Your task to perform on an android device: Open ESPN.com Image 0: 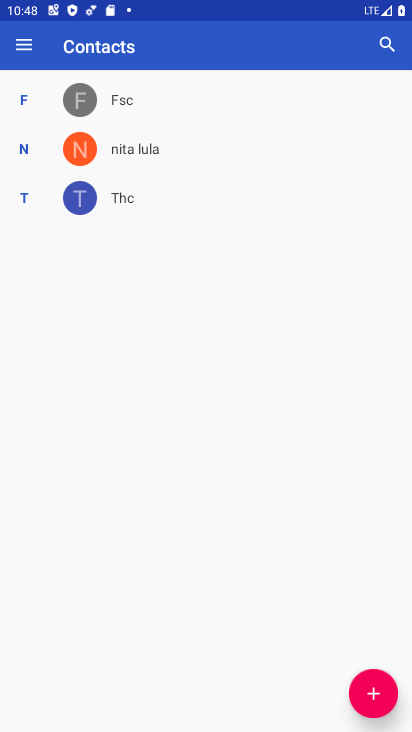
Step 0: press home button
Your task to perform on an android device: Open ESPN.com Image 1: 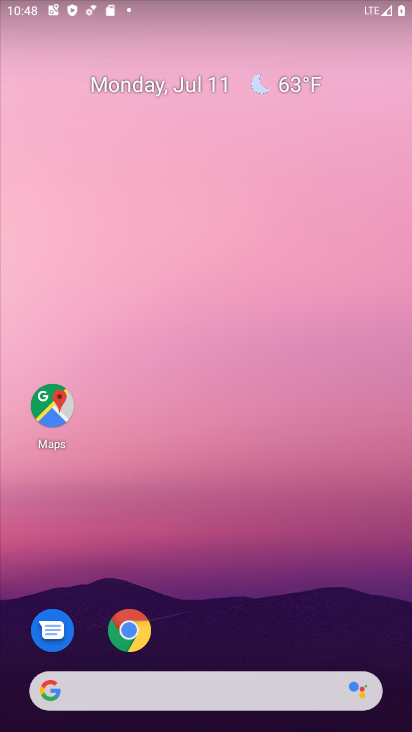
Step 1: click (131, 632)
Your task to perform on an android device: Open ESPN.com Image 2: 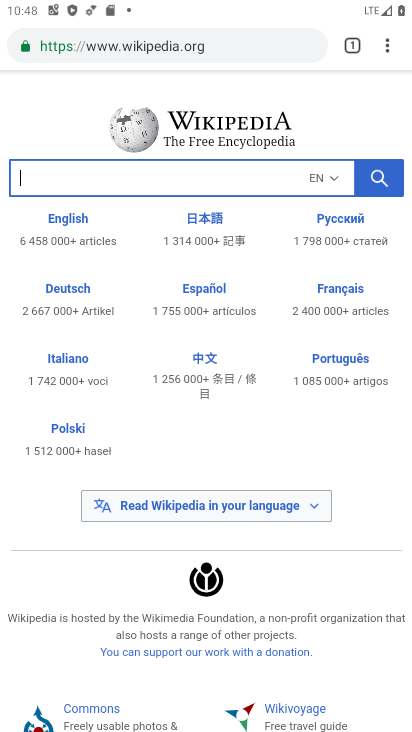
Step 2: click (238, 44)
Your task to perform on an android device: Open ESPN.com Image 3: 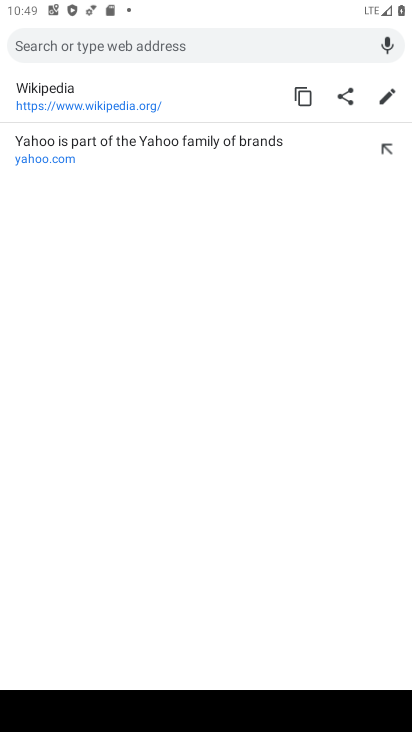
Step 3: type "ESPN.com"
Your task to perform on an android device: Open ESPN.com Image 4: 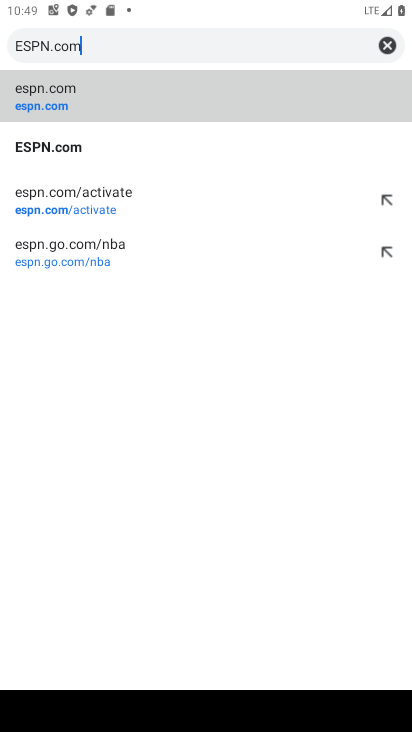
Step 4: click (57, 96)
Your task to perform on an android device: Open ESPN.com Image 5: 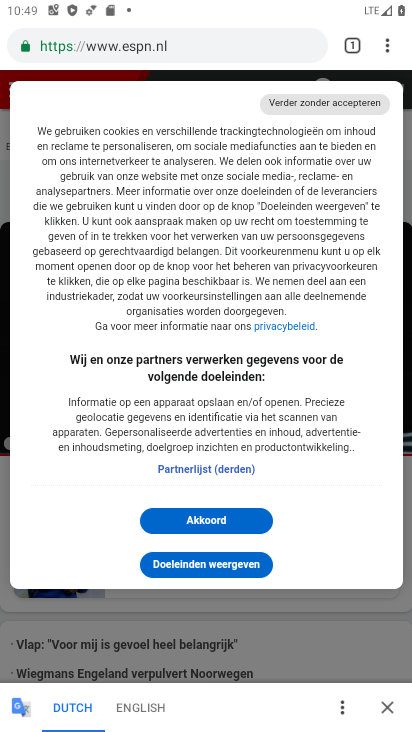
Step 5: click (207, 519)
Your task to perform on an android device: Open ESPN.com Image 6: 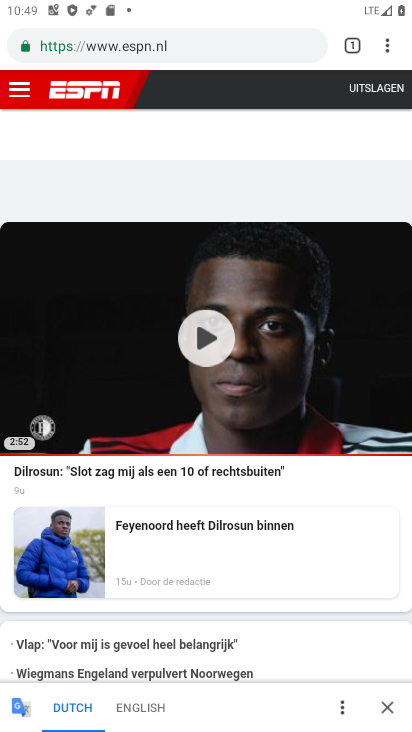
Step 6: task complete